Your task to perform on an android device: What's on my calendar tomorrow? Image 0: 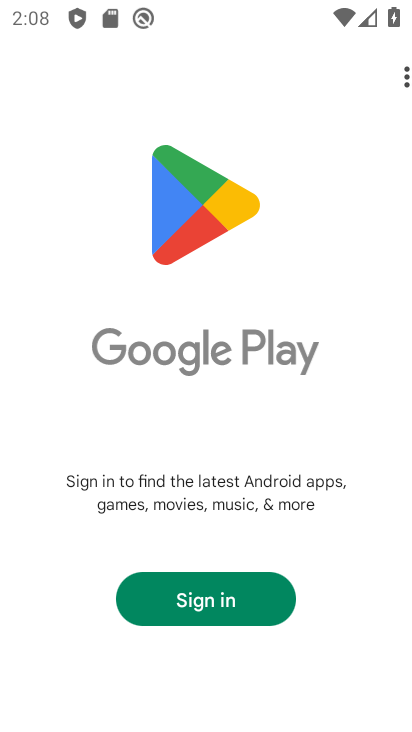
Step 0: press home button
Your task to perform on an android device: What's on my calendar tomorrow? Image 1: 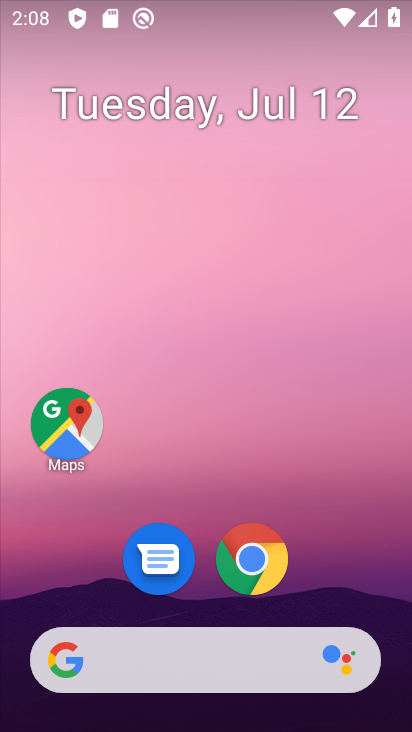
Step 1: drag from (377, 582) to (349, 173)
Your task to perform on an android device: What's on my calendar tomorrow? Image 2: 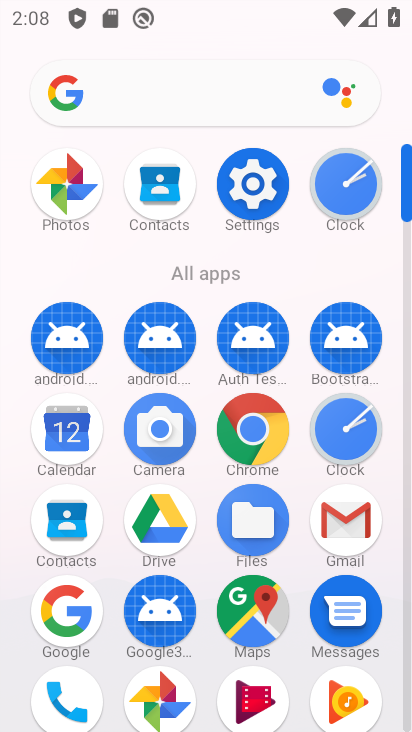
Step 2: click (61, 428)
Your task to perform on an android device: What's on my calendar tomorrow? Image 3: 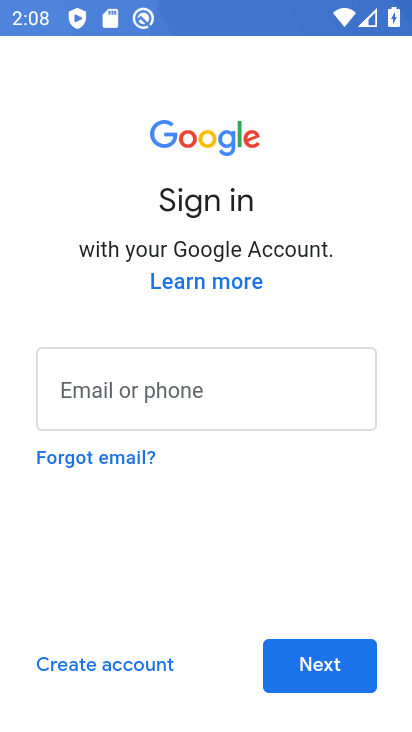
Step 3: task complete